Your task to perform on an android device: clear all cookies in the chrome app Image 0: 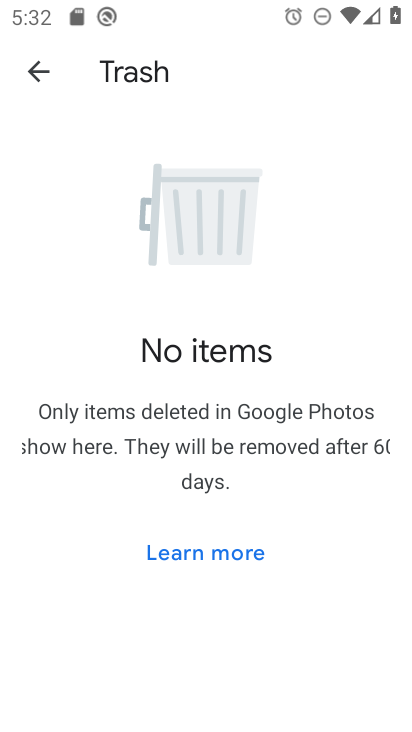
Step 0: press home button
Your task to perform on an android device: clear all cookies in the chrome app Image 1: 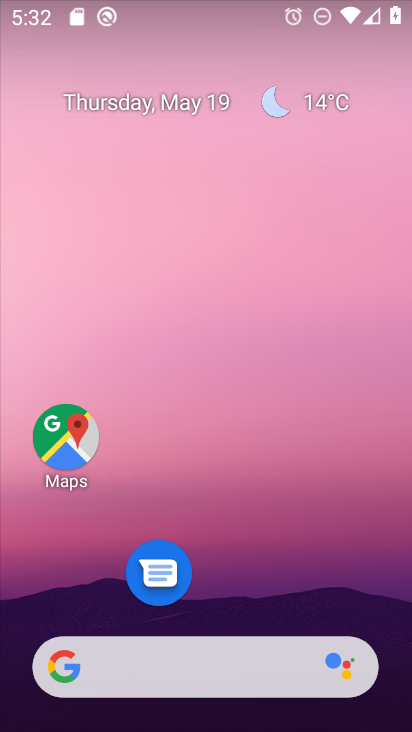
Step 1: drag from (244, 617) to (142, 23)
Your task to perform on an android device: clear all cookies in the chrome app Image 2: 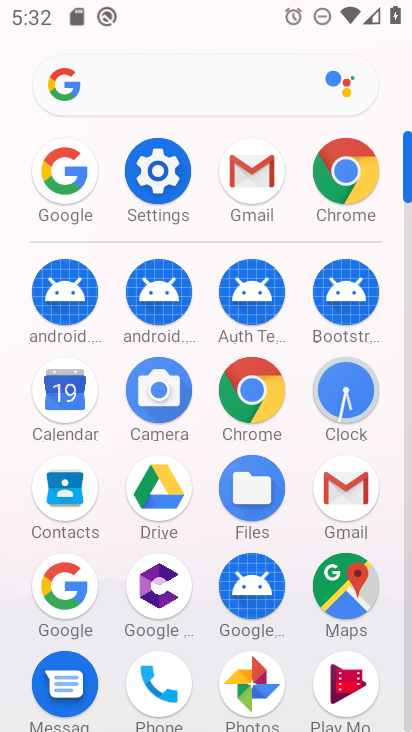
Step 2: click (348, 197)
Your task to perform on an android device: clear all cookies in the chrome app Image 3: 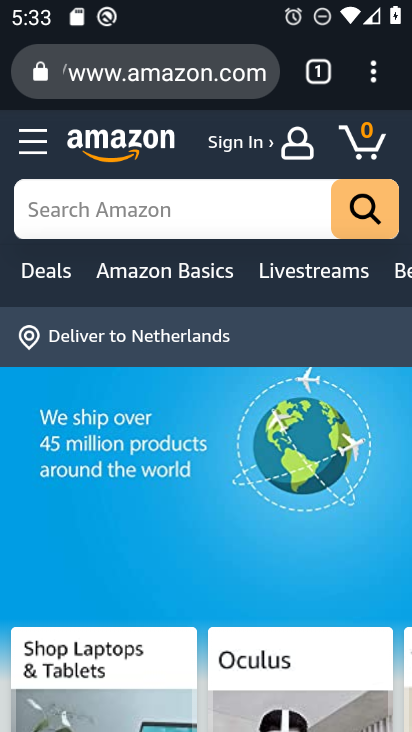
Step 3: click (375, 77)
Your task to perform on an android device: clear all cookies in the chrome app Image 4: 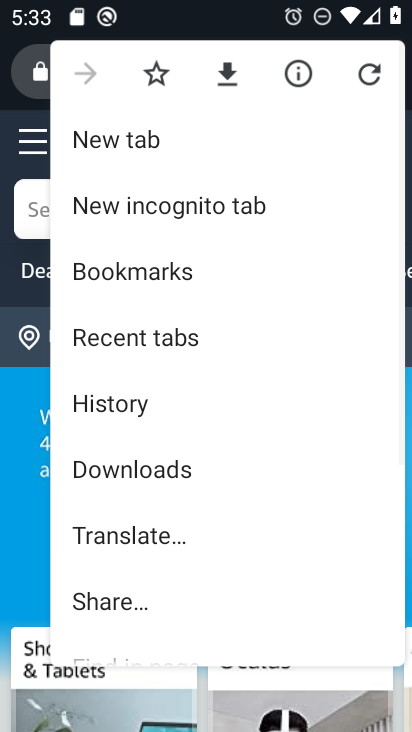
Step 4: click (107, 415)
Your task to perform on an android device: clear all cookies in the chrome app Image 5: 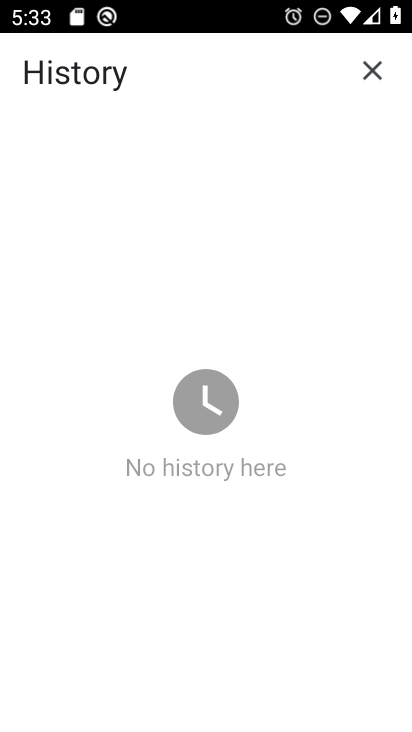
Step 5: task complete